Your task to perform on an android device: Open Google Maps and go to "Timeline" Image 0: 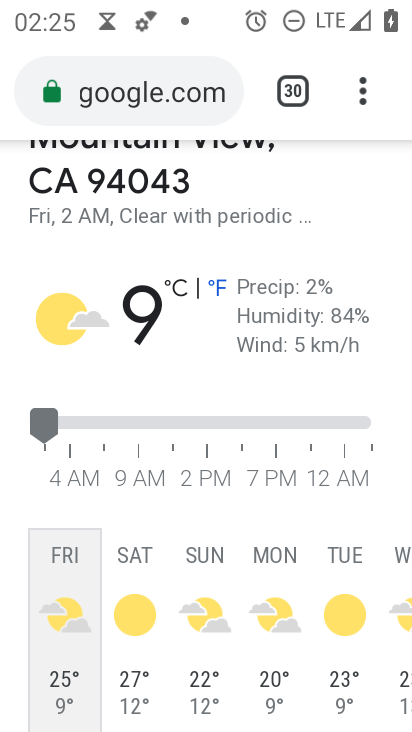
Step 0: press home button
Your task to perform on an android device: Open Google Maps and go to "Timeline" Image 1: 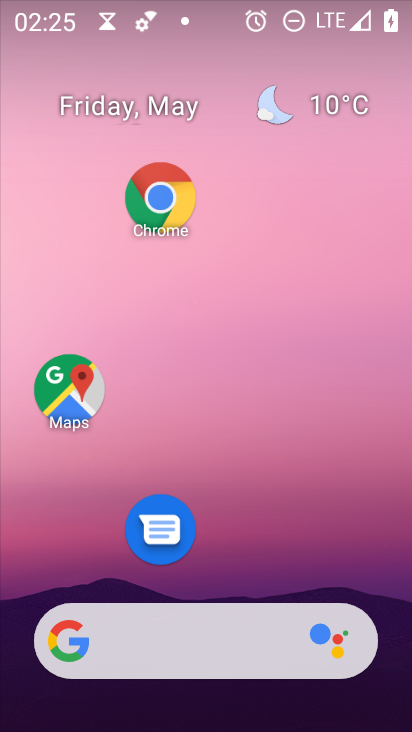
Step 1: click (89, 379)
Your task to perform on an android device: Open Google Maps and go to "Timeline" Image 2: 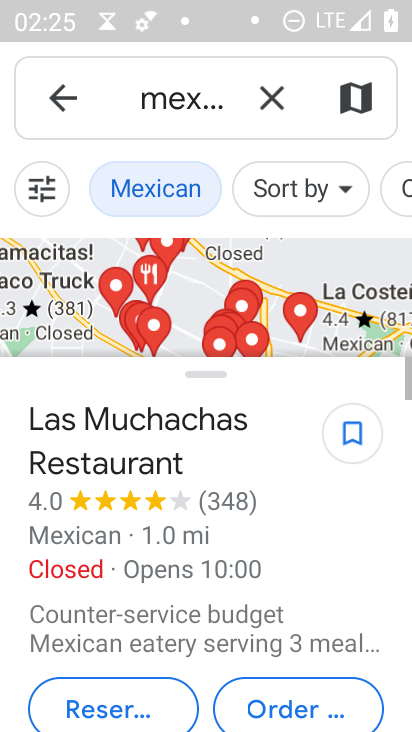
Step 2: click (268, 96)
Your task to perform on an android device: Open Google Maps and go to "Timeline" Image 3: 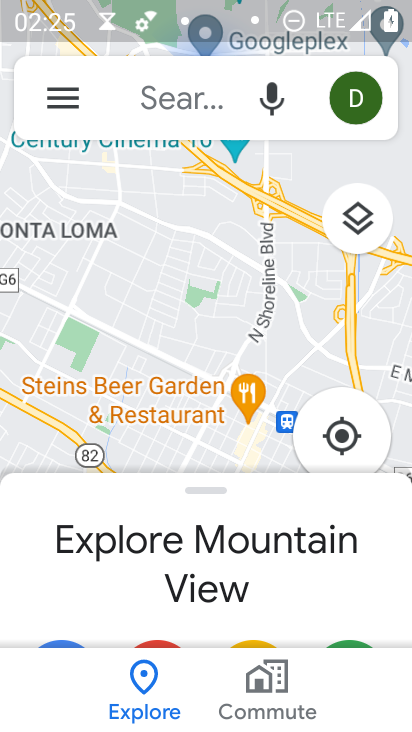
Step 3: click (46, 91)
Your task to perform on an android device: Open Google Maps and go to "Timeline" Image 4: 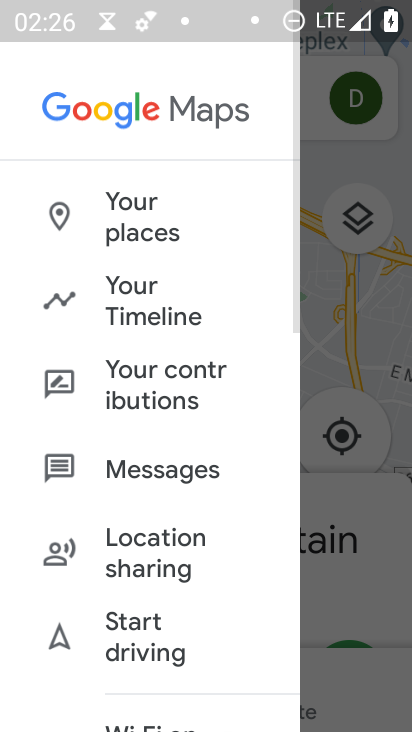
Step 4: click (154, 293)
Your task to perform on an android device: Open Google Maps and go to "Timeline" Image 5: 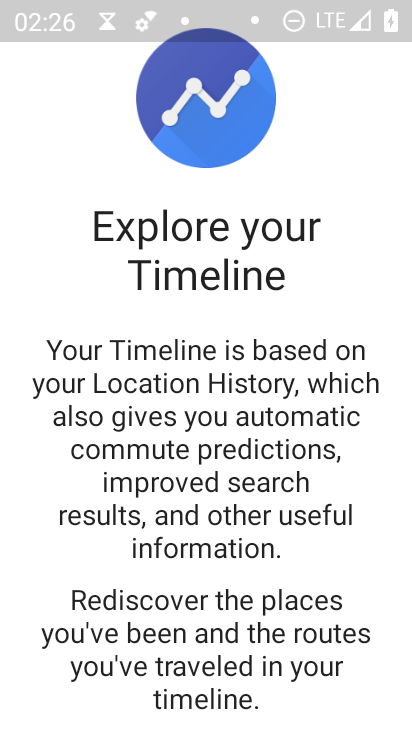
Step 5: drag from (108, 630) to (191, 262)
Your task to perform on an android device: Open Google Maps and go to "Timeline" Image 6: 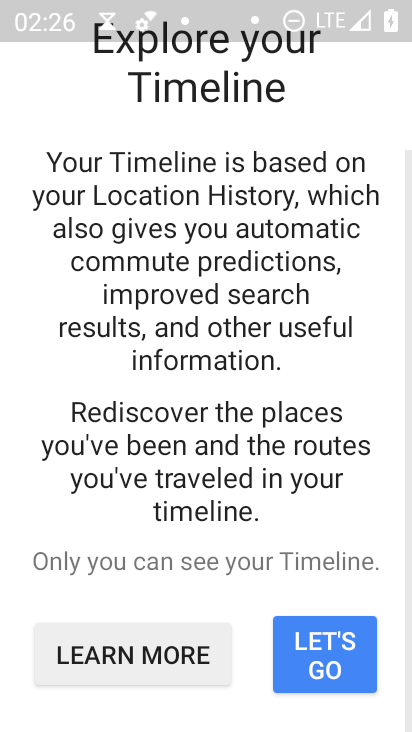
Step 6: click (317, 681)
Your task to perform on an android device: Open Google Maps and go to "Timeline" Image 7: 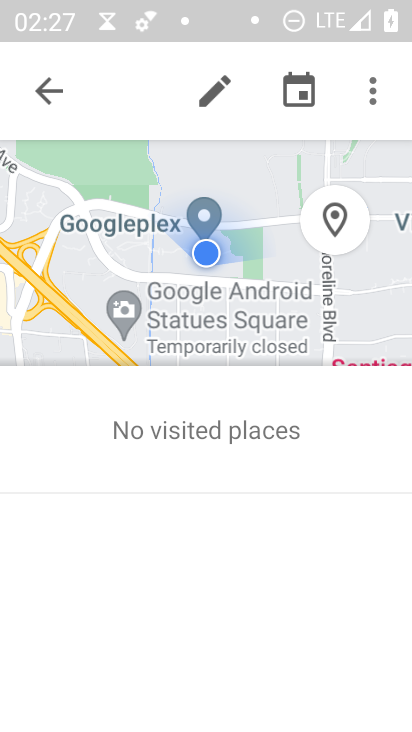
Step 7: task complete